Your task to perform on an android device: turn off improve location accuracy Image 0: 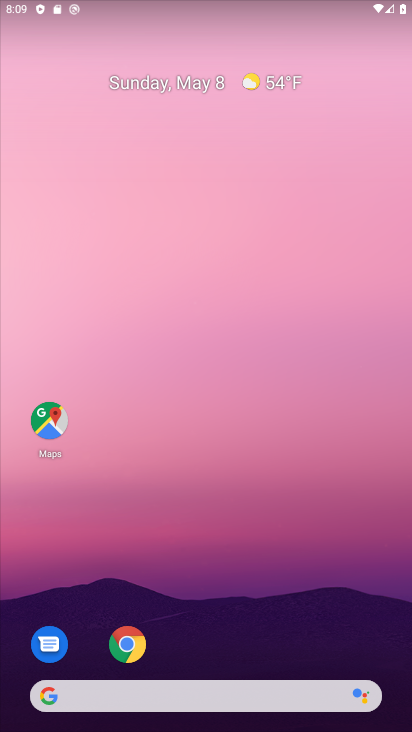
Step 0: drag from (260, 611) to (271, 202)
Your task to perform on an android device: turn off improve location accuracy Image 1: 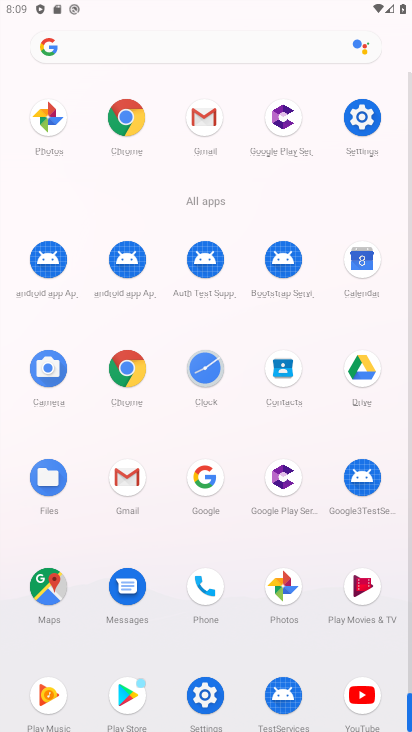
Step 1: click (370, 122)
Your task to perform on an android device: turn off improve location accuracy Image 2: 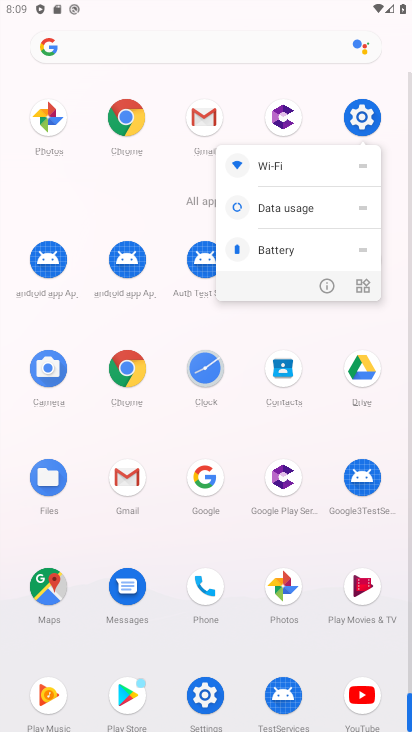
Step 2: click (337, 289)
Your task to perform on an android device: turn off improve location accuracy Image 3: 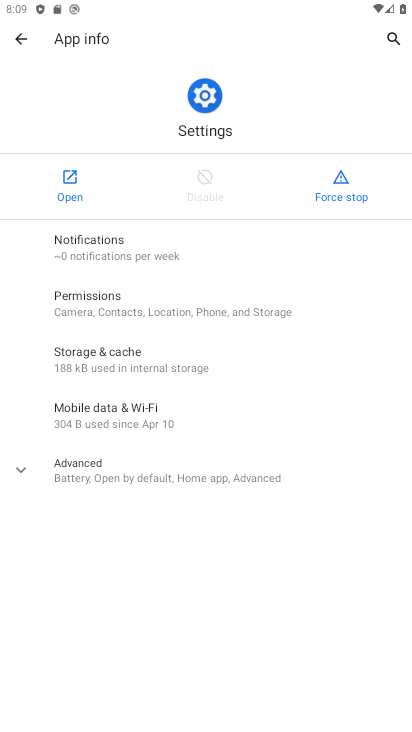
Step 3: click (66, 195)
Your task to perform on an android device: turn off improve location accuracy Image 4: 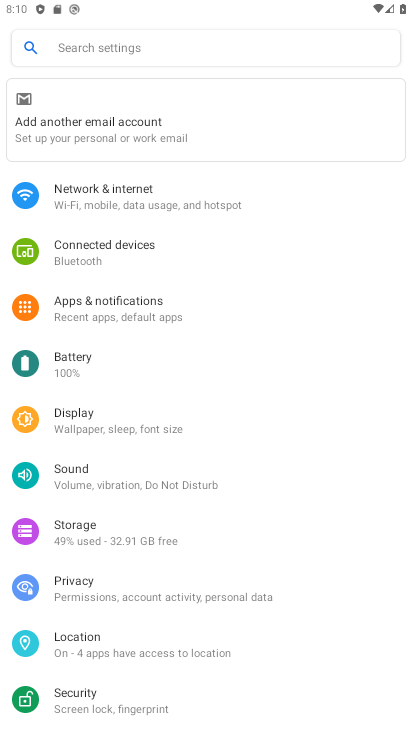
Step 4: drag from (191, 675) to (273, 175)
Your task to perform on an android device: turn off improve location accuracy Image 5: 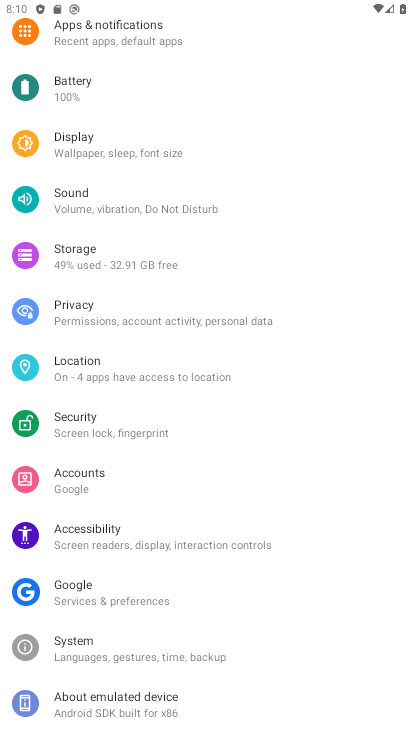
Step 5: click (142, 361)
Your task to perform on an android device: turn off improve location accuracy Image 6: 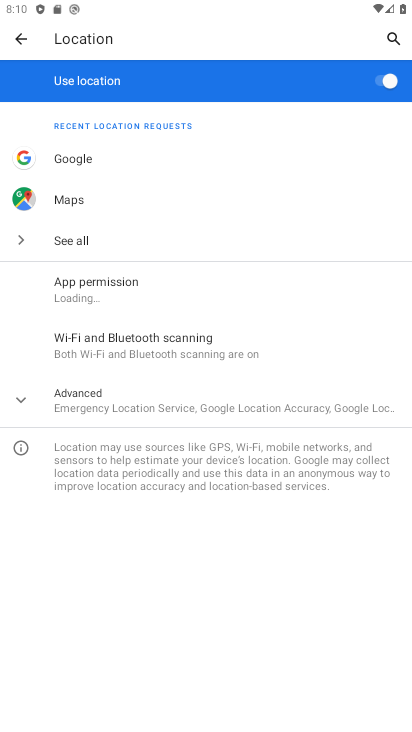
Step 6: click (92, 415)
Your task to perform on an android device: turn off improve location accuracy Image 7: 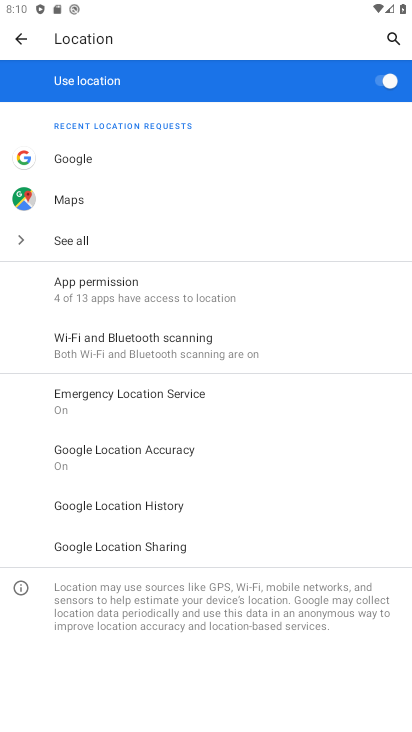
Step 7: click (178, 455)
Your task to perform on an android device: turn off improve location accuracy Image 8: 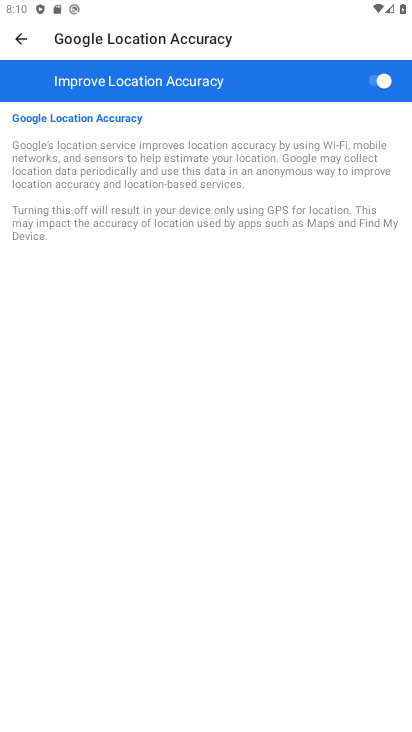
Step 8: click (378, 89)
Your task to perform on an android device: turn off improve location accuracy Image 9: 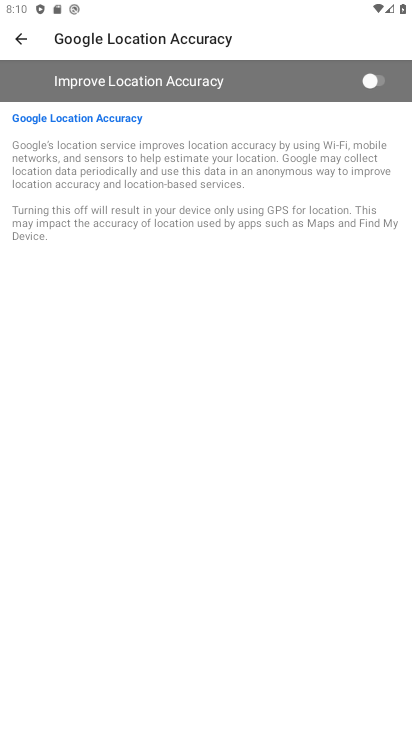
Step 9: task complete